Your task to perform on an android device: read, delete, or share a saved page in the chrome app Image 0: 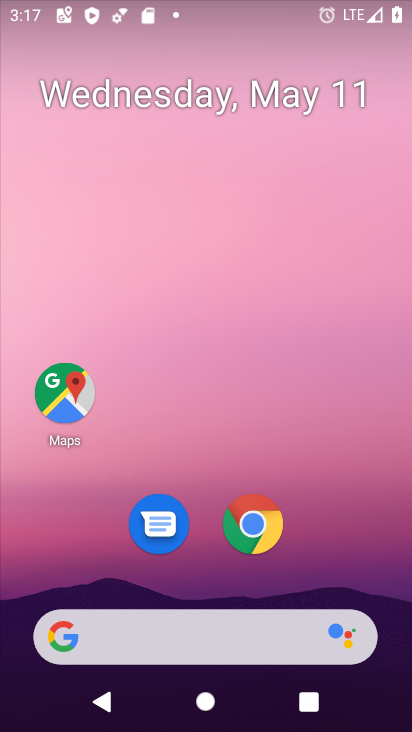
Step 0: click (267, 522)
Your task to perform on an android device: read, delete, or share a saved page in the chrome app Image 1: 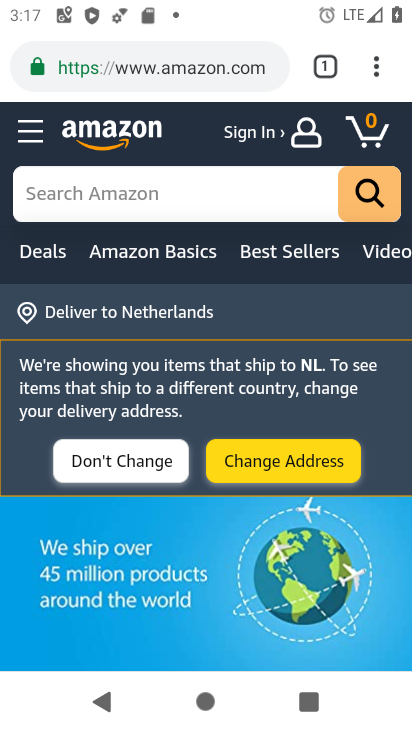
Step 1: click (378, 63)
Your task to perform on an android device: read, delete, or share a saved page in the chrome app Image 2: 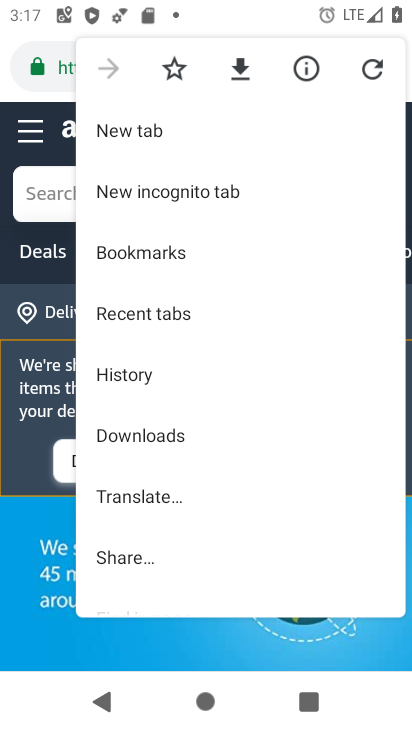
Step 2: click (169, 427)
Your task to perform on an android device: read, delete, or share a saved page in the chrome app Image 3: 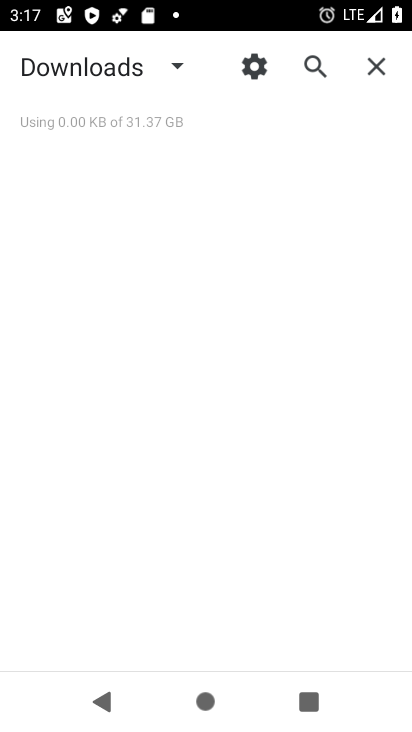
Step 3: click (119, 69)
Your task to perform on an android device: read, delete, or share a saved page in the chrome app Image 4: 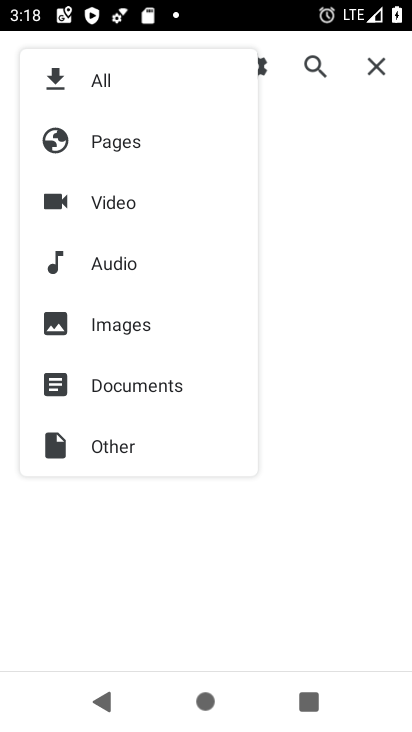
Step 4: click (313, 285)
Your task to perform on an android device: read, delete, or share a saved page in the chrome app Image 5: 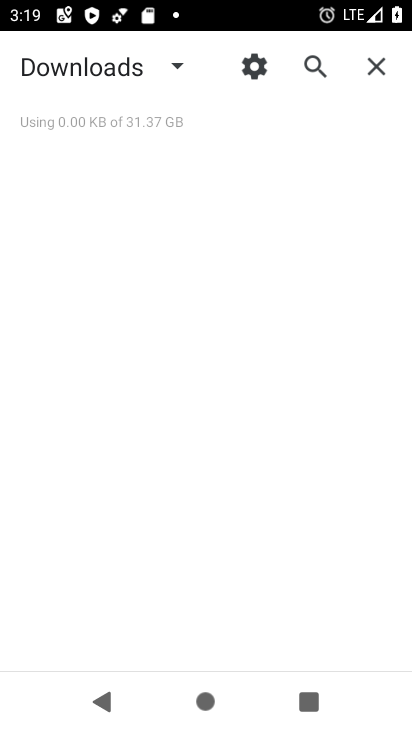
Step 5: task complete